Your task to perform on an android device: Open my contact list Image 0: 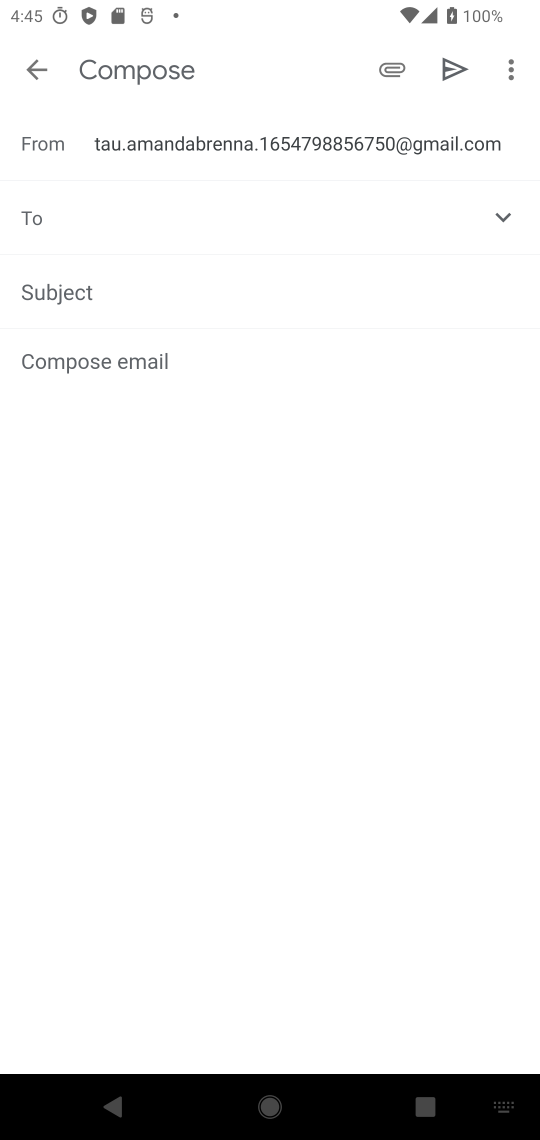
Step 0: press home button
Your task to perform on an android device: Open my contact list Image 1: 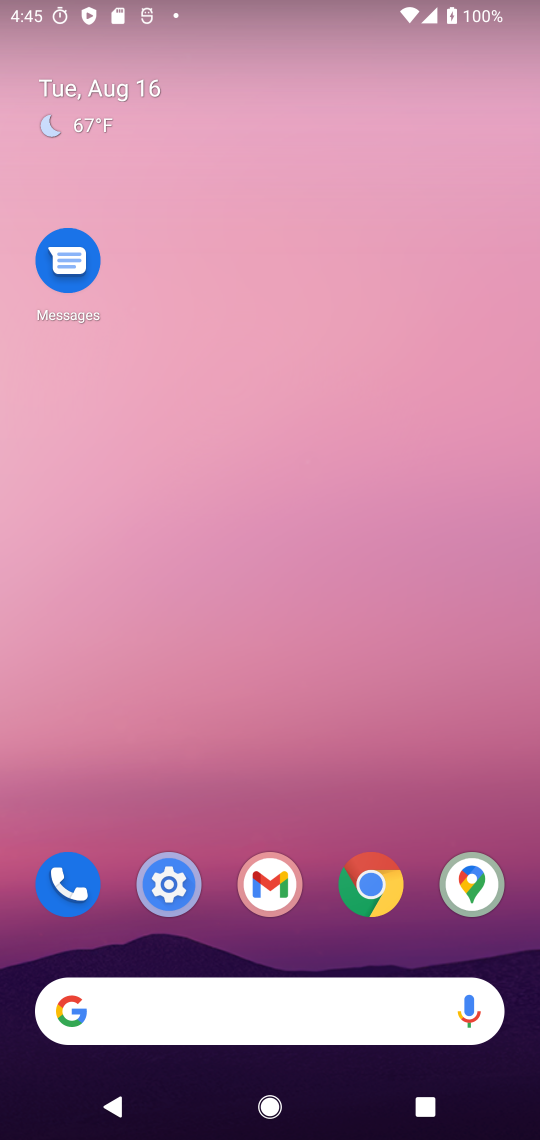
Step 1: drag from (34, 1113) to (304, 223)
Your task to perform on an android device: Open my contact list Image 2: 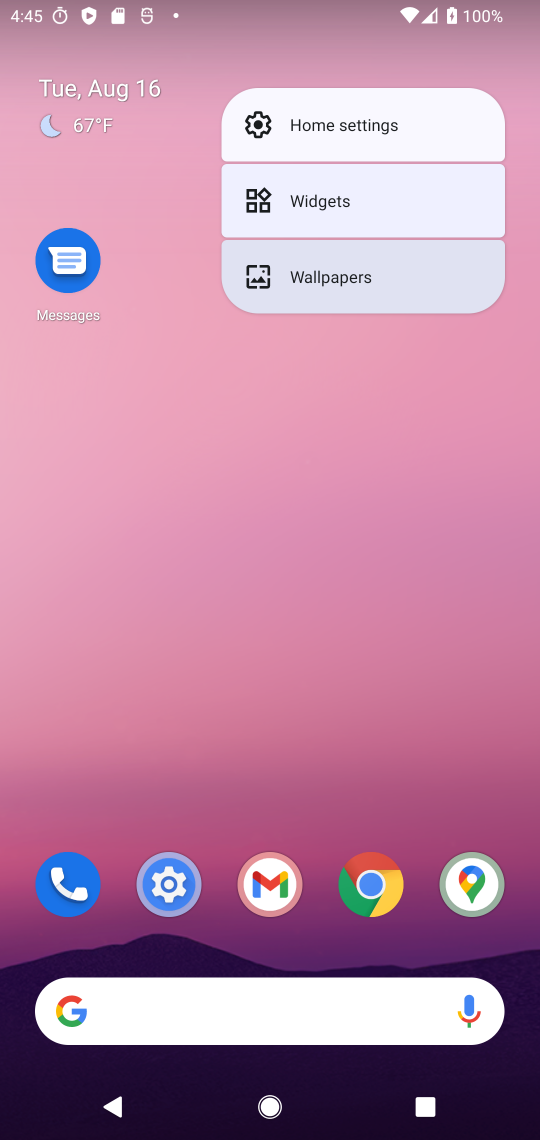
Step 2: drag from (42, 1072) to (153, 290)
Your task to perform on an android device: Open my contact list Image 3: 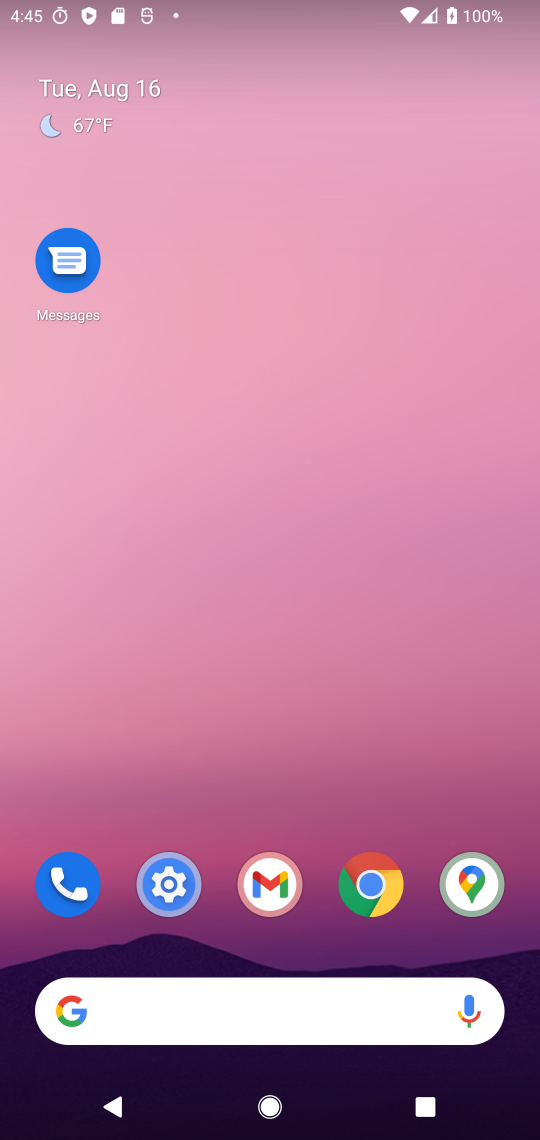
Step 3: drag from (57, 1079) to (356, 319)
Your task to perform on an android device: Open my contact list Image 4: 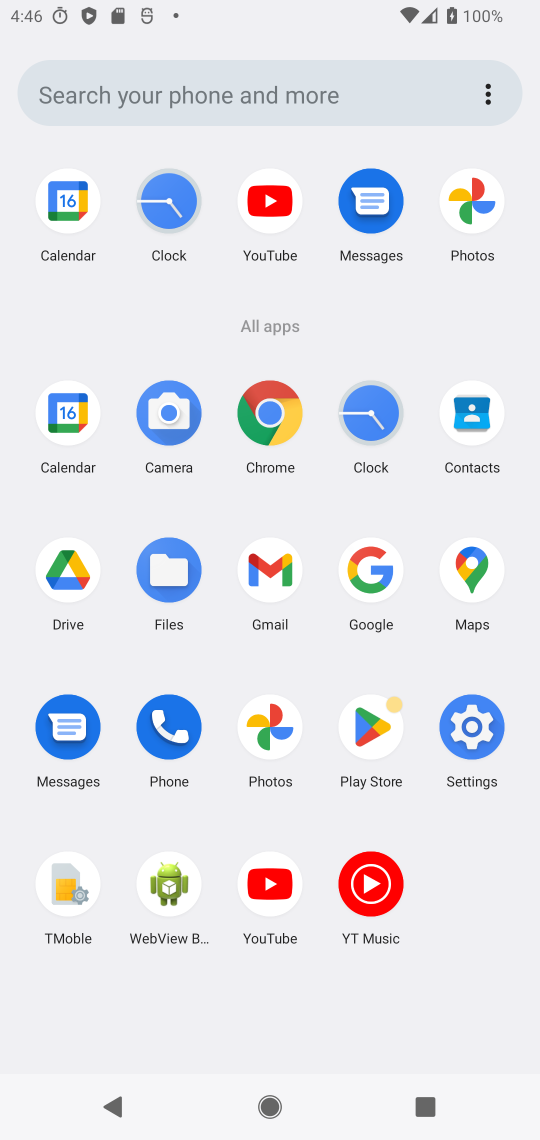
Step 4: click (452, 444)
Your task to perform on an android device: Open my contact list Image 5: 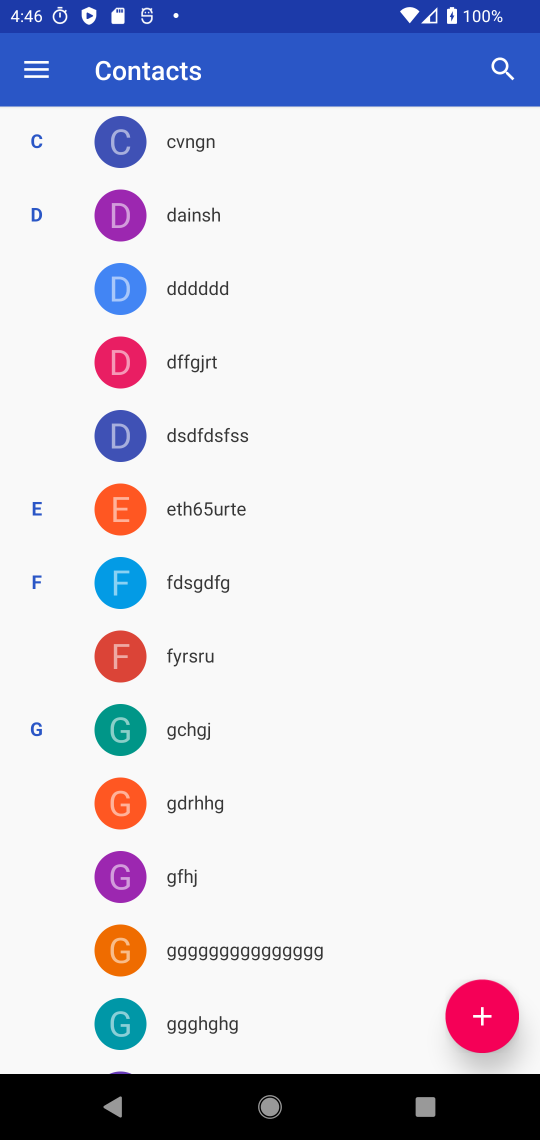
Step 5: click (475, 1007)
Your task to perform on an android device: Open my contact list Image 6: 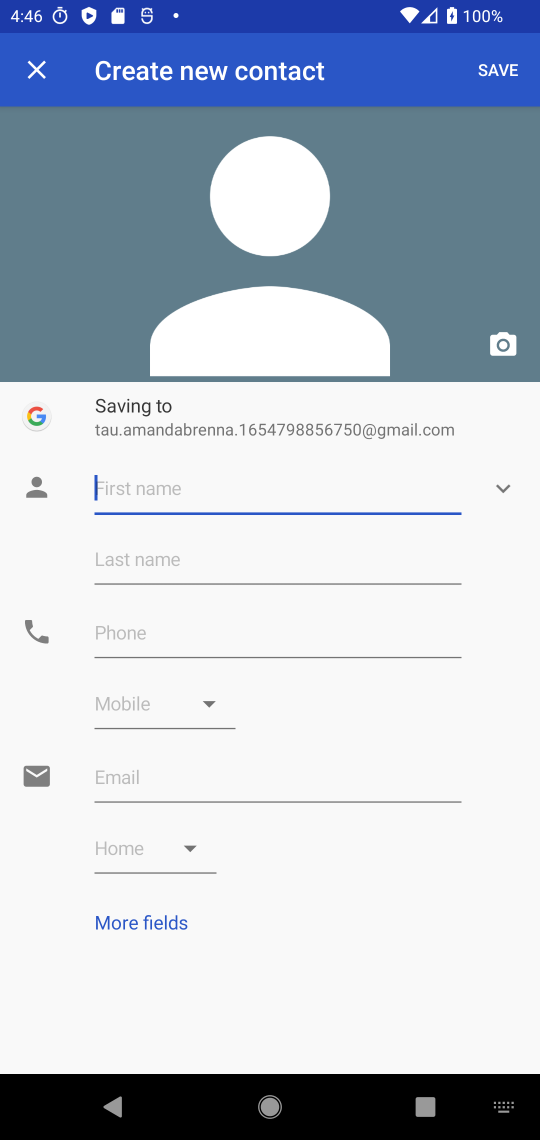
Step 6: type "erjfjhgghg"
Your task to perform on an android device: Open my contact list Image 7: 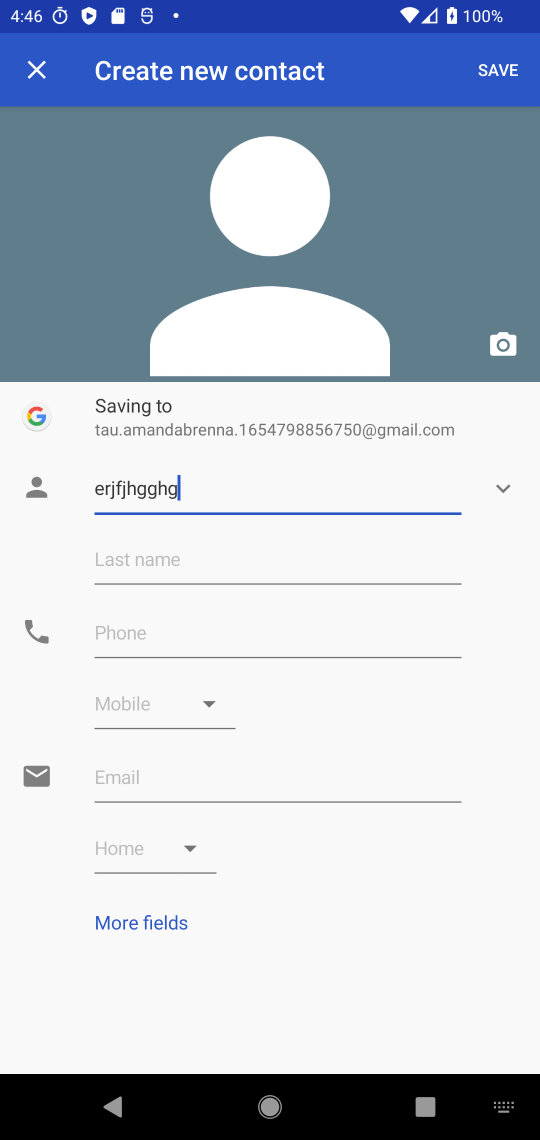
Step 7: click (494, 66)
Your task to perform on an android device: Open my contact list Image 8: 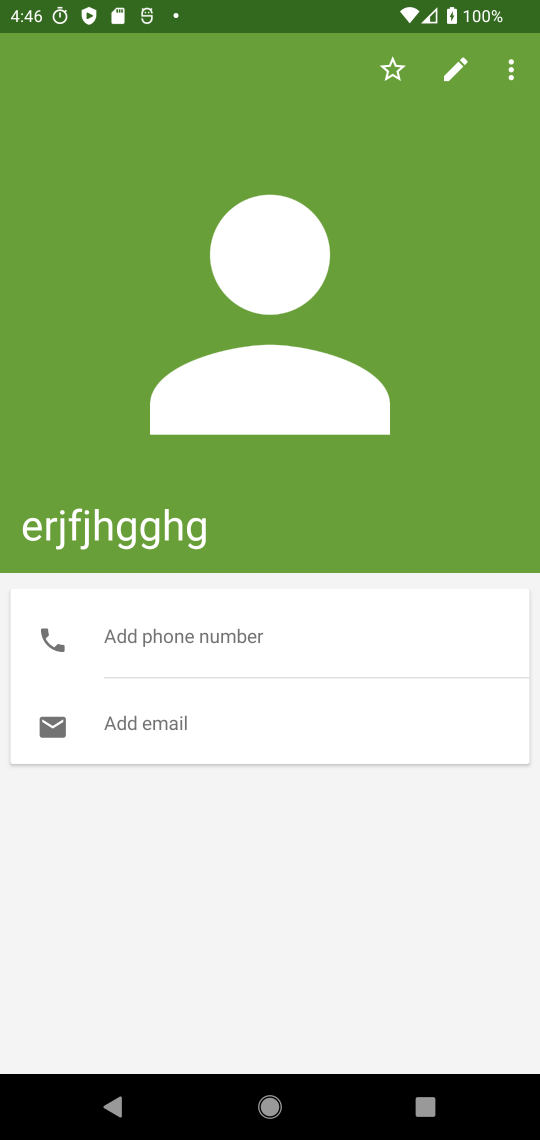
Step 8: task complete